Your task to perform on an android device: turn on bluetooth scan Image 0: 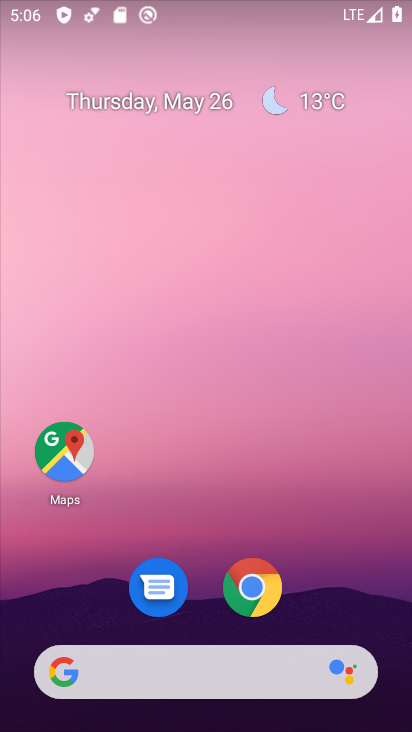
Step 0: drag from (224, 709) to (232, 179)
Your task to perform on an android device: turn on bluetooth scan Image 1: 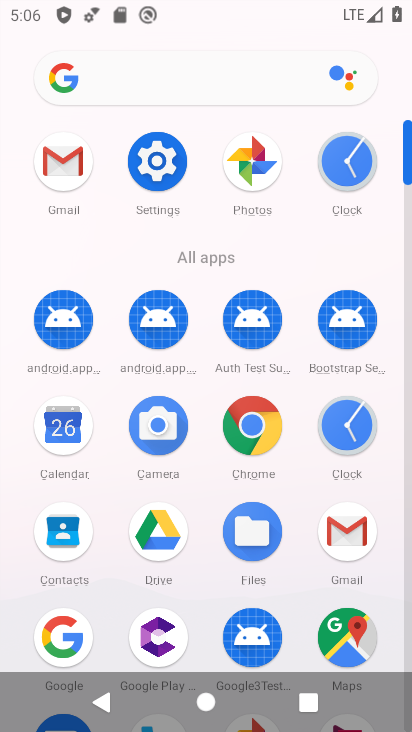
Step 1: click (163, 158)
Your task to perform on an android device: turn on bluetooth scan Image 2: 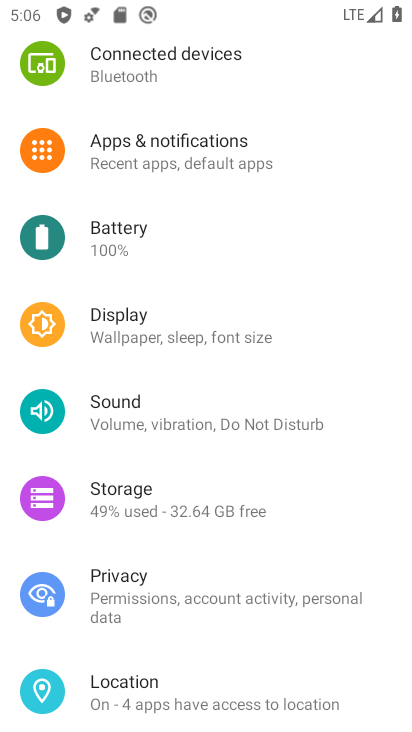
Step 2: click (126, 683)
Your task to perform on an android device: turn on bluetooth scan Image 3: 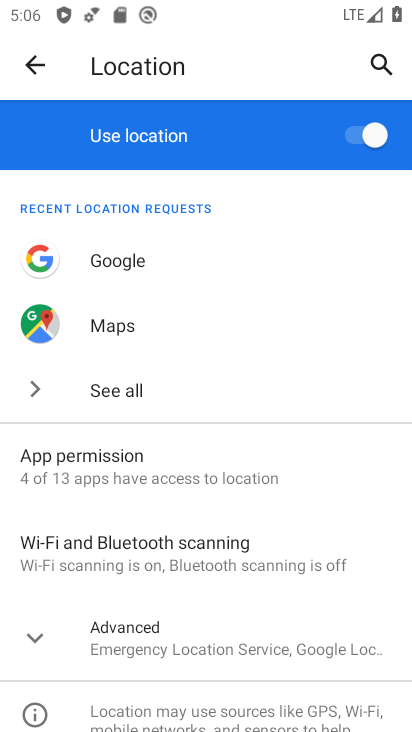
Step 3: drag from (189, 674) to (208, 421)
Your task to perform on an android device: turn on bluetooth scan Image 4: 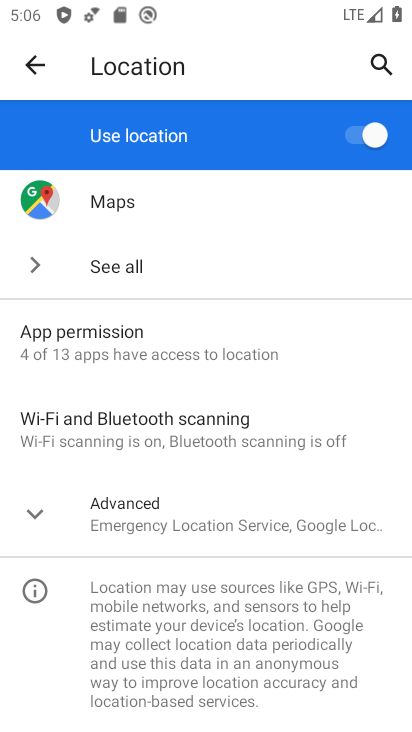
Step 4: click (177, 428)
Your task to perform on an android device: turn on bluetooth scan Image 5: 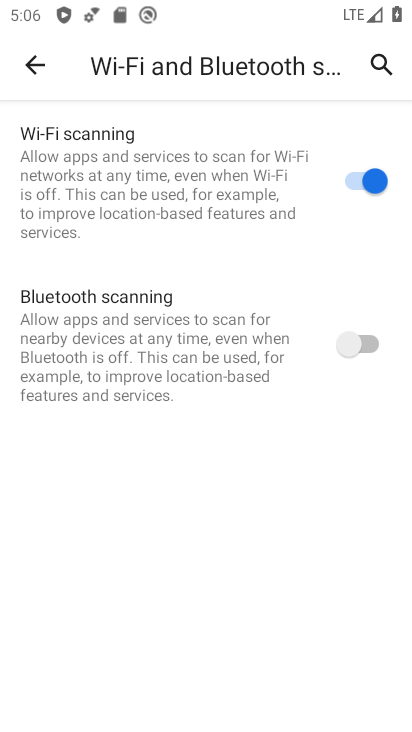
Step 5: click (372, 334)
Your task to perform on an android device: turn on bluetooth scan Image 6: 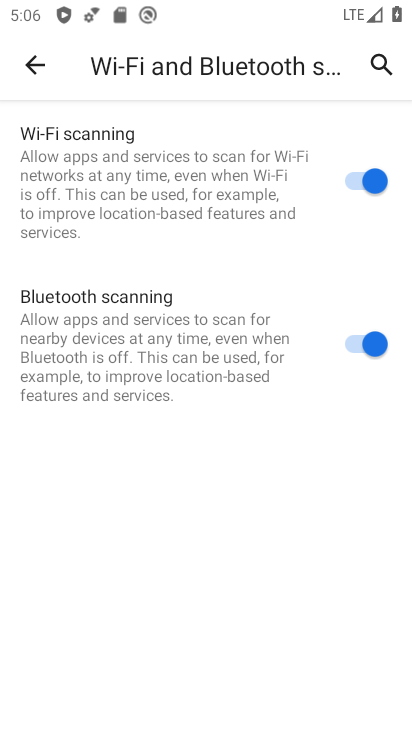
Step 6: task complete